Your task to perform on an android device: Open the phone app and click the voicemail tab. Image 0: 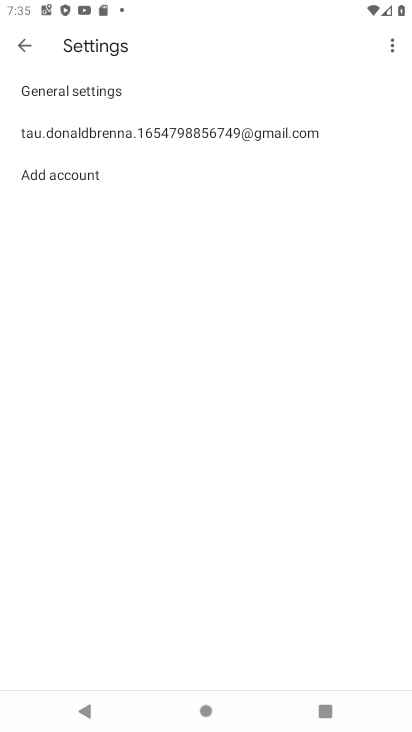
Step 0: press home button
Your task to perform on an android device: Open the phone app and click the voicemail tab. Image 1: 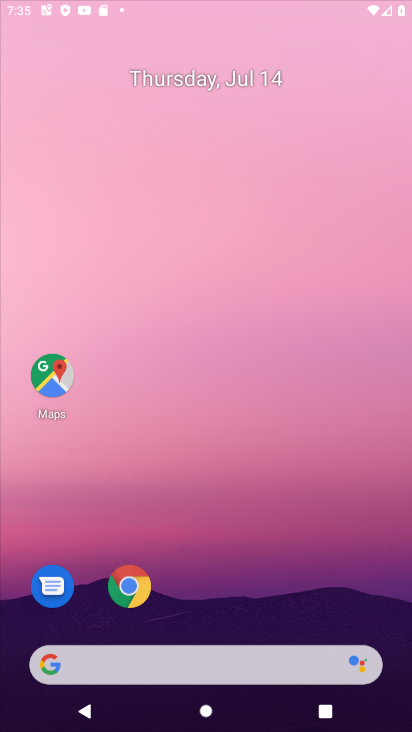
Step 1: drag from (373, 651) to (253, 0)
Your task to perform on an android device: Open the phone app and click the voicemail tab. Image 2: 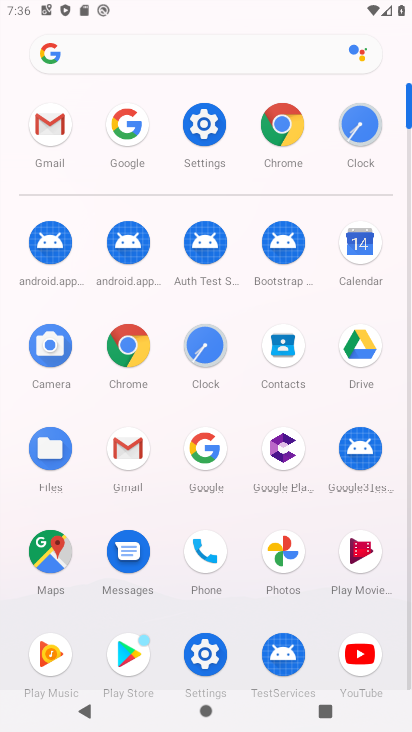
Step 2: click (205, 556)
Your task to perform on an android device: Open the phone app and click the voicemail tab. Image 3: 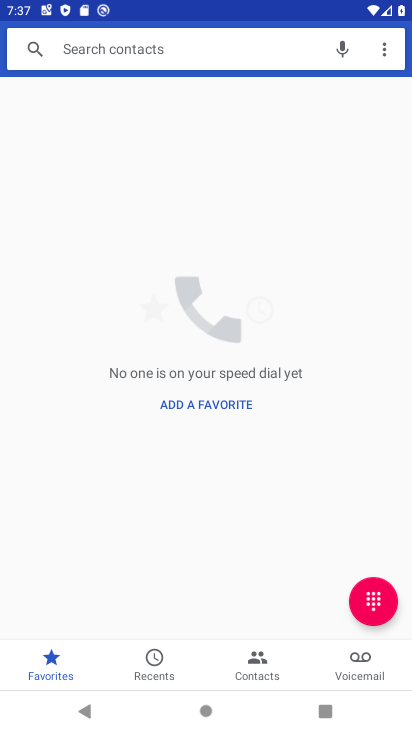
Step 3: click (359, 674)
Your task to perform on an android device: Open the phone app and click the voicemail tab. Image 4: 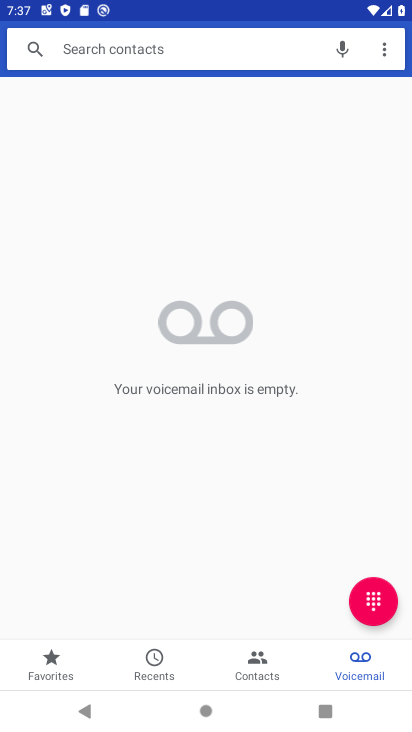
Step 4: task complete